Your task to perform on an android device: turn off airplane mode Image 0: 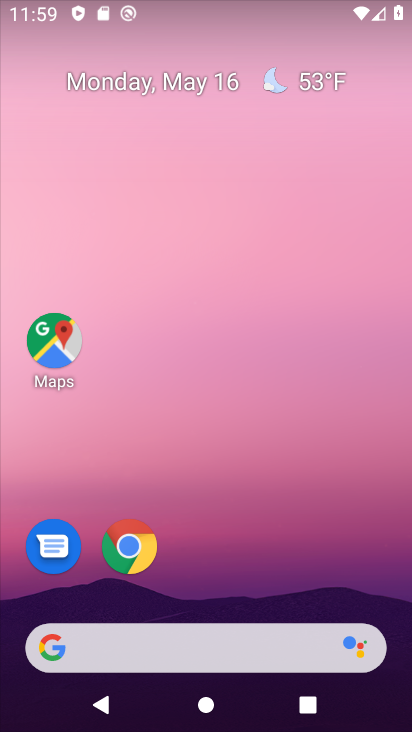
Step 0: drag from (217, 615) to (353, 154)
Your task to perform on an android device: turn off airplane mode Image 1: 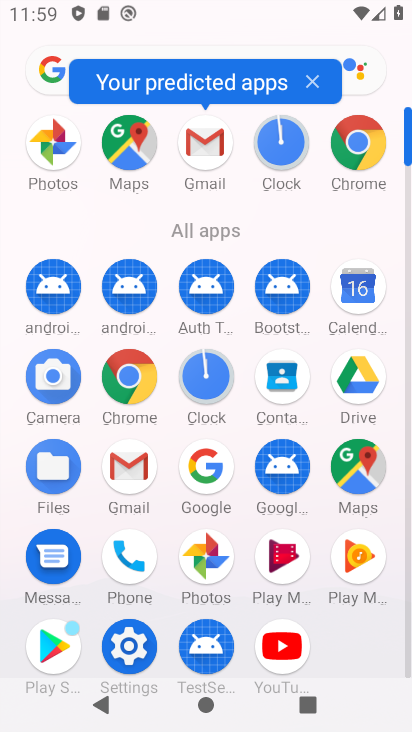
Step 1: click (129, 642)
Your task to perform on an android device: turn off airplane mode Image 2: 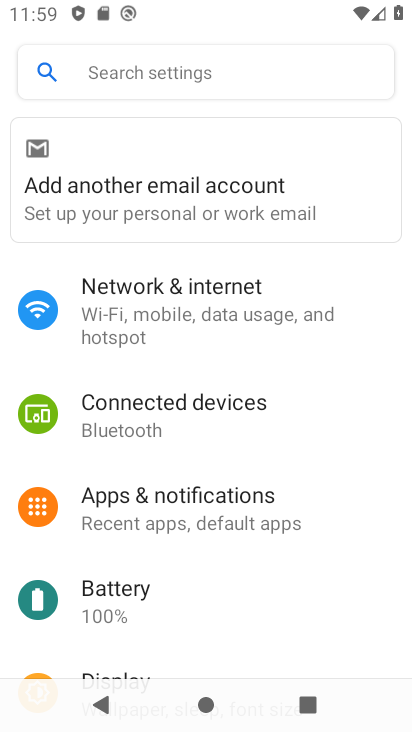
Step 2: click (186, 297)
Your task to perform on an android device: turn off airplane mode Image 3: 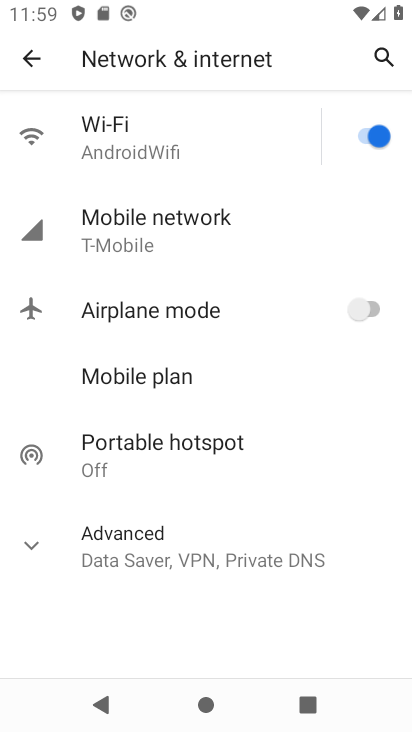
Step 3: task complete